Your task to perform on an android device: move a message to another label in the gmail app Image 0: 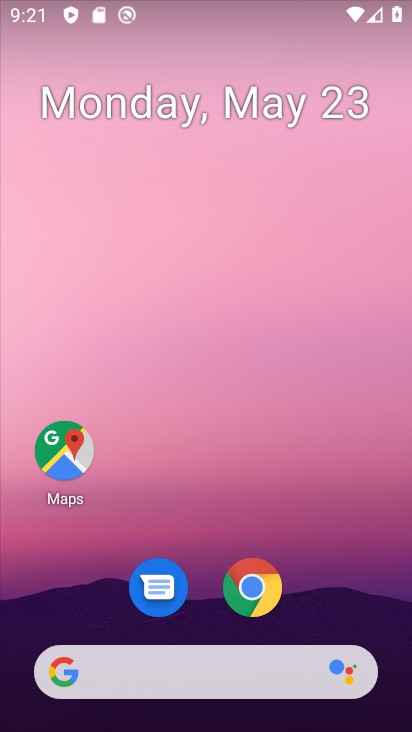
Step 0: drag from (350, 565) to (381, 14)
Your task to perform on an android device: move a message to another label in the gmail app Image 1: 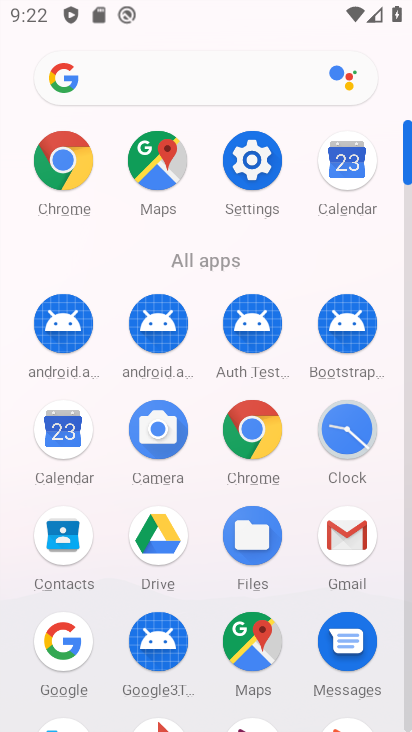
Step 1: click (356, 543)
Your task to perform on an android device: move a message to another label in the gmail app Image 2: 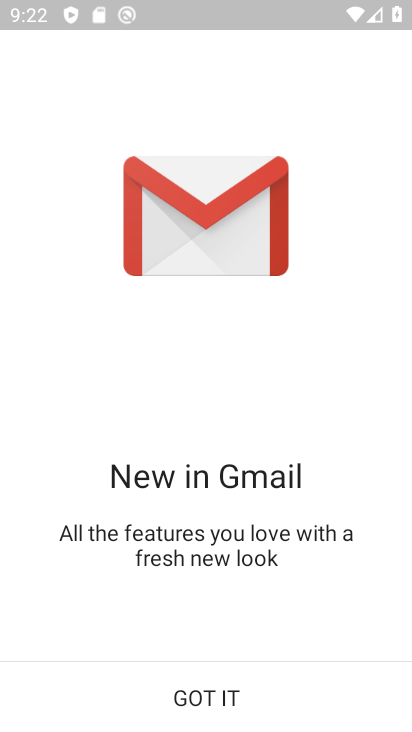
Step 2: click (234, 675)
Your task to perform on an android device: move a message to another label in the gmail app Image 3: 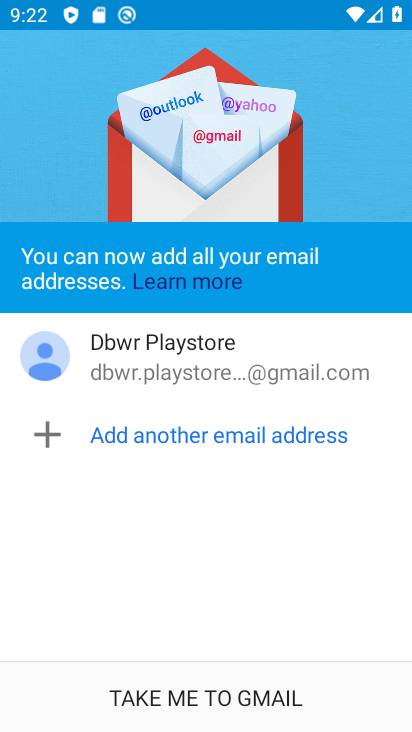
Step 3: click (248, 700)
Your task to perform on an android device: move a message to another label in the gmail app Image 4: 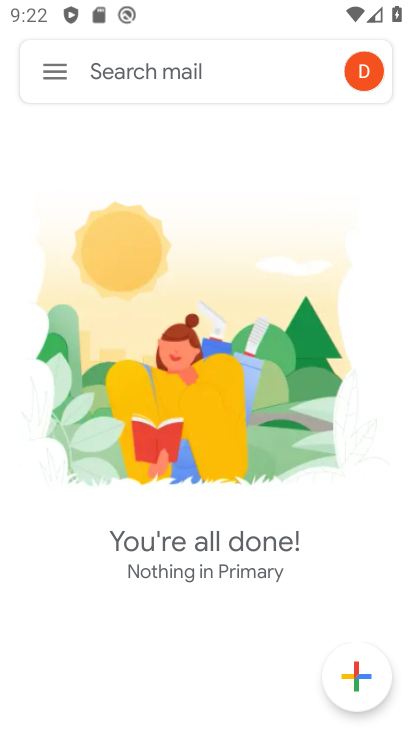
Step 4: task complete